Your task to perform on an android device: Open the map Image 0: 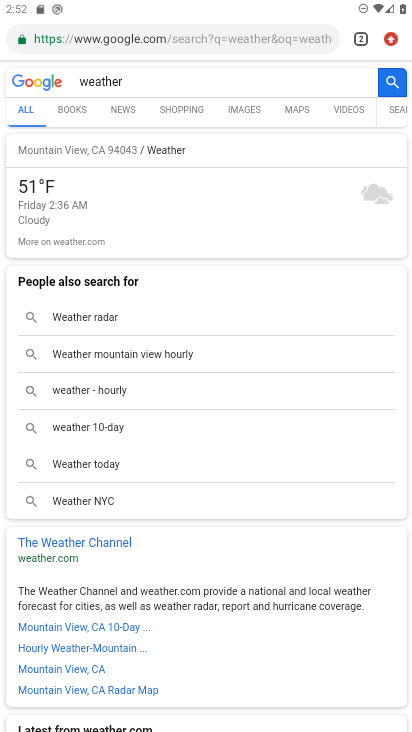
Step 0: press home button
Your task to perform on an android device: Open the map Image 1: 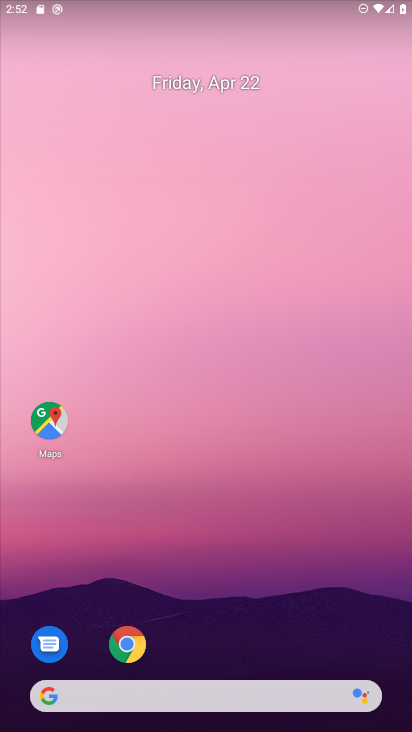
Step 1: drag from (293, 544) to (269, 131)
Your task to perform on an android device: Open the map Image 2: 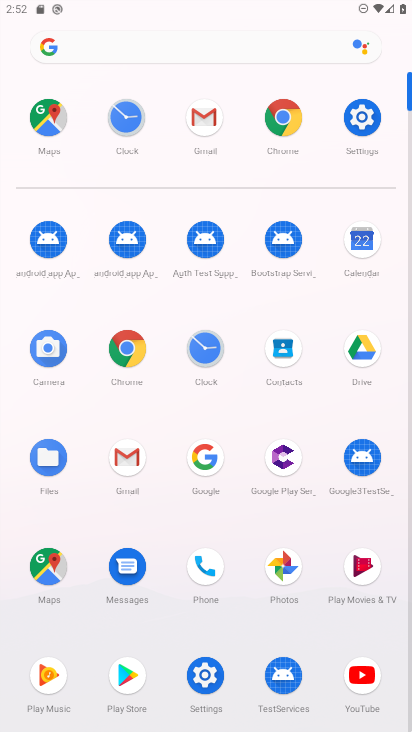
Step 2: click (55, 122)
Your task to perform on an android device: Open the map Image 3: 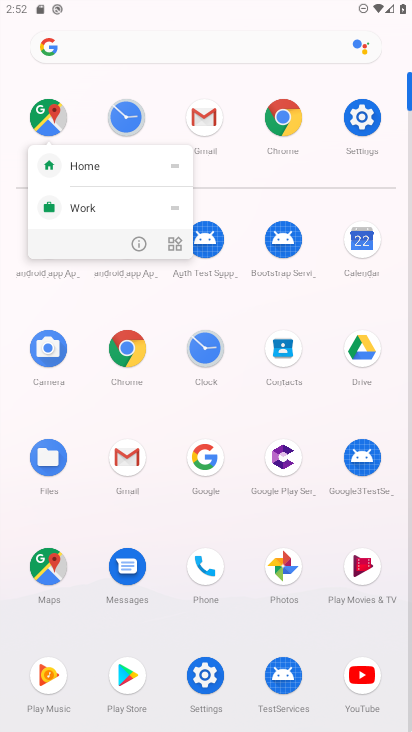
Step 3: click (40, 573)
Your task to perform on an android device: Open the map Image 4: 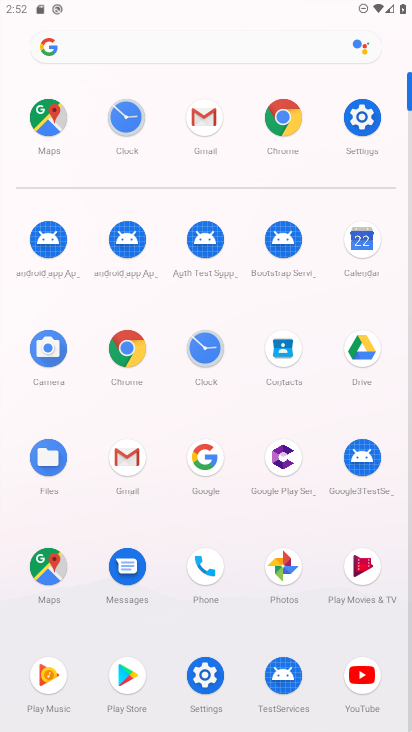
Step 4: click (41, 566)
Your task to perform on an android device: Open the map Image 5: 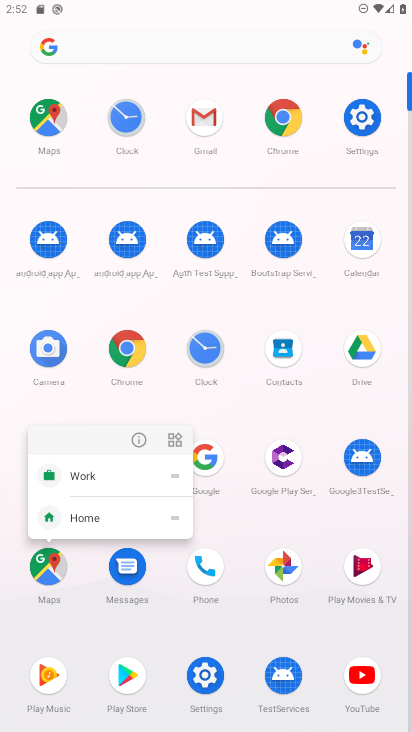
Step 5: click (42, 563)
Your task to perform on an android device: Open the map Image 6: 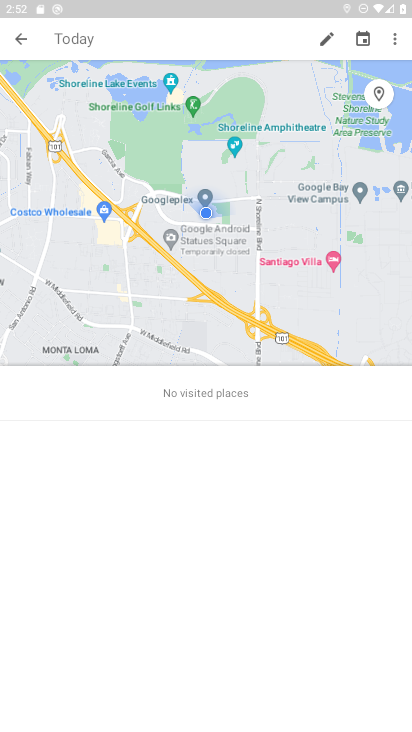
Step 6: task complete